Your task to perform on an android device: Open Google Maps Image 0: 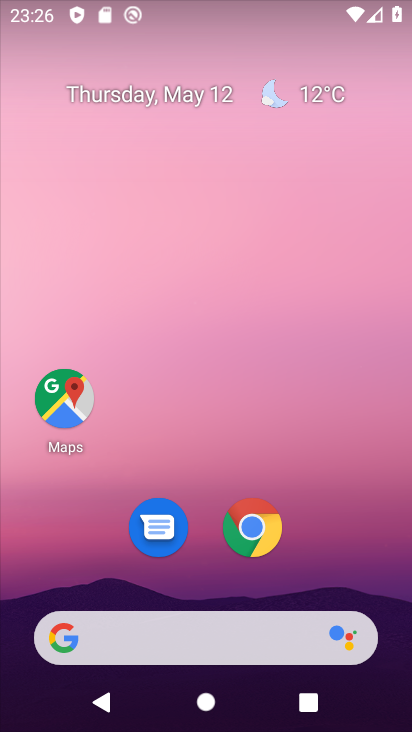
Step 0: click (83, 405)
Your task to perform on an android device: Open Google Maps Image 1: 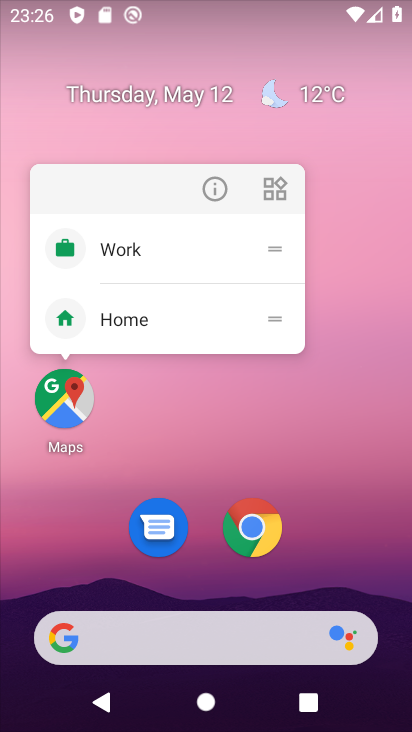
Step 1: click (44, 388)
Your task to perform on an android device: Open Google Maps Image 2: 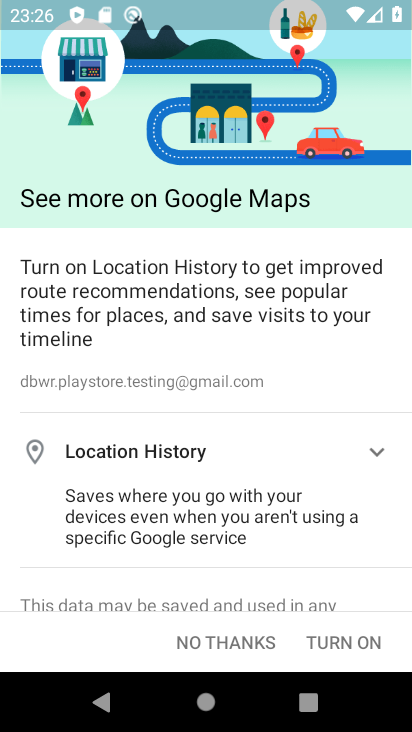
Step 2: click (185, 636)
Your task to perform on an android device: Open Google Maps Image 3: 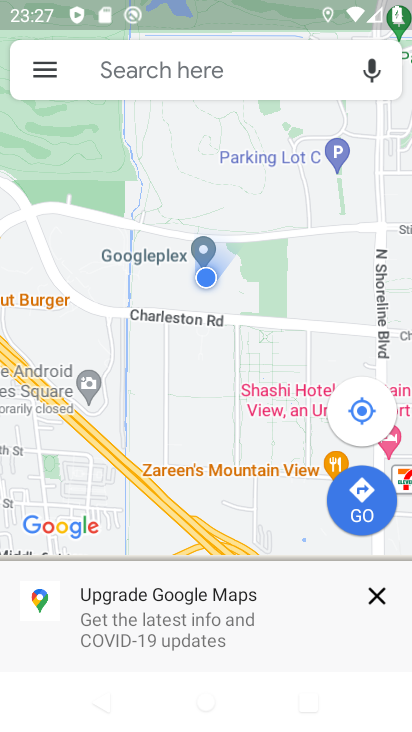
Step 3: task complete